Your task to perform on an android device: Go to CNN.com Image 0: 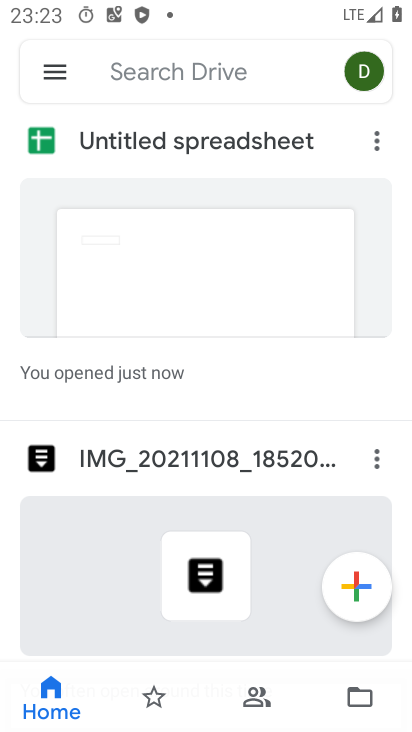
Step 0: press home button
Your task to perform on an android device: Go to CNN.com Image 1: 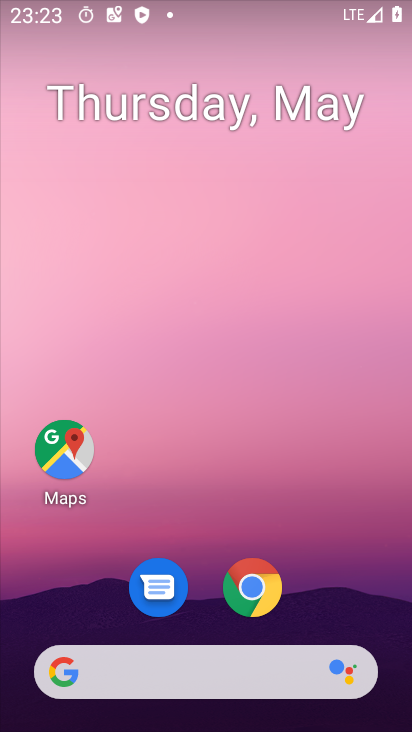
Step 1: click (234, 591)
Your task to perform on an android device: Go to CNN.com Image 2: 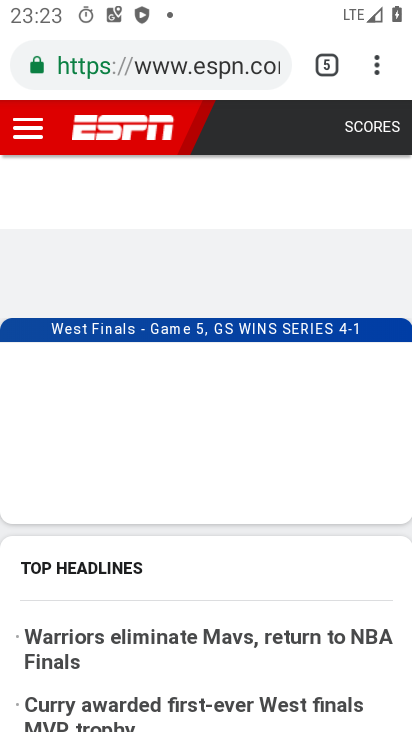
Step 2: click (143, 63)
Your task to perform on an android device: Go to CNN.com Image 3: 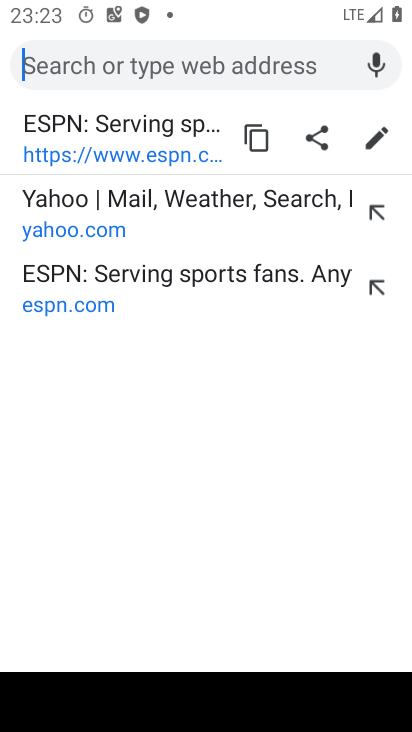
Step 3: type "cnn.com"
Your task to perform on an android device: Go to CNN.com Image 4: 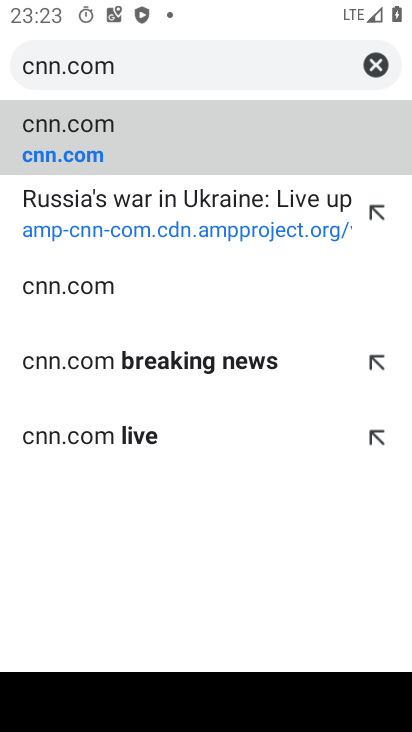
Step 4: click (73, 152)
Your task to perform on an android device: Go to CNN.com Image 5: 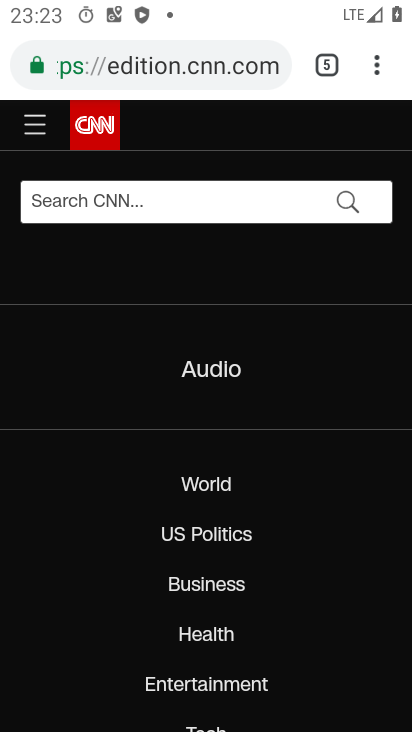
Step 5: task complete